Your task to perform on an android device: Find coffee shops on Maps Image 0: 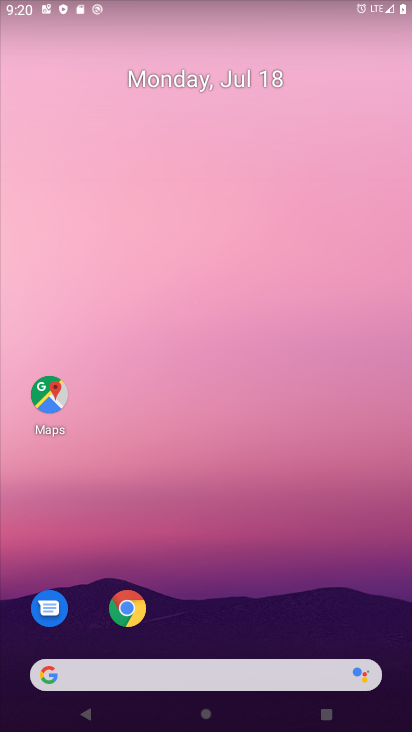
Step 0: drag from (242, 725) to (222, 162)
Your task to perform on an android device: Find coffee shops on Maps Image 1: 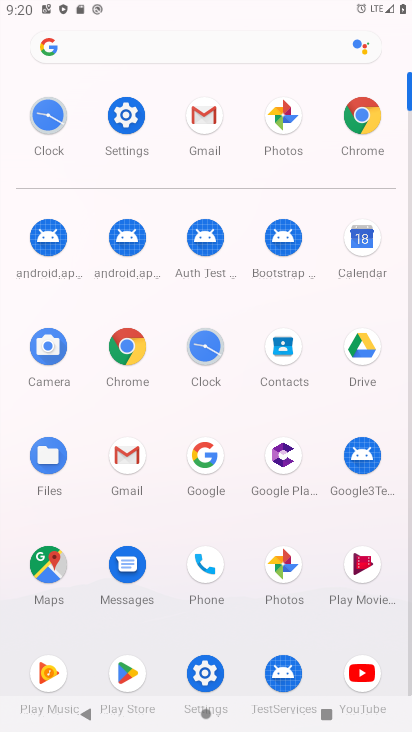
Step 1: click (44, 564)
Your task to perform on an android device: Find coffee shops on Maps Image 2: 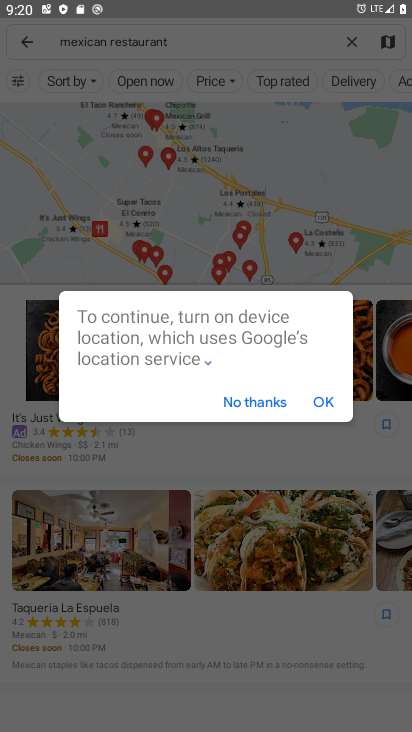
Step 2: click (260, 400)
Your task to perform on an android device: Find coffee shops on Maps Image 3: 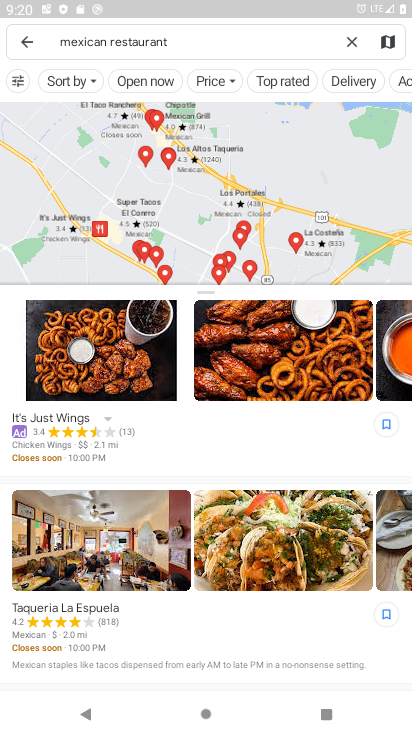
Step 3: click (354, 37)
Your task to perform on an android device: Find coffee shops on Maps Image 4: 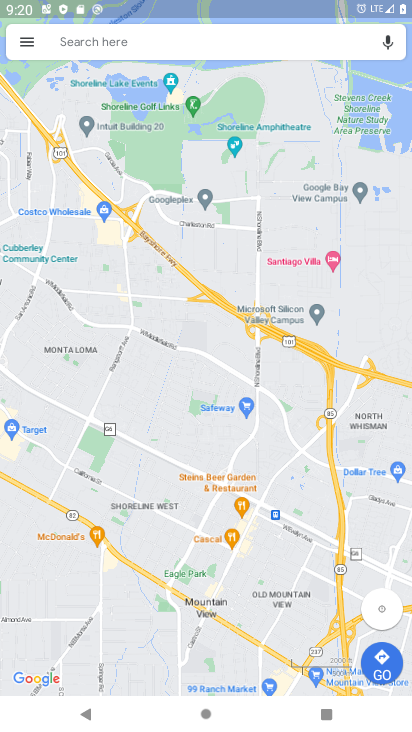
Step 4: click (236, 39)
Your task to perform on an android device: Find coffee shops on Maps Image 5: 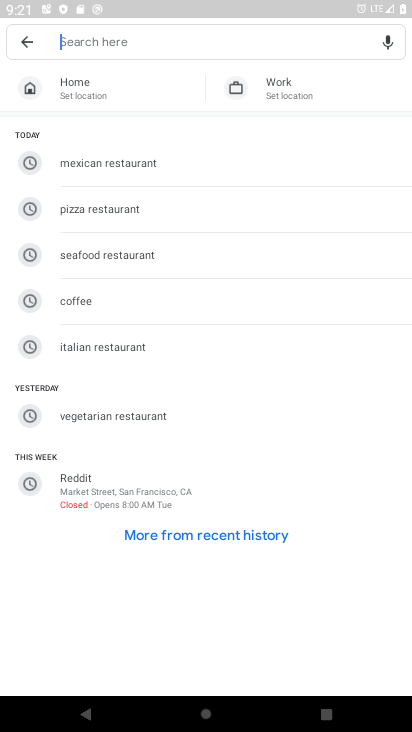
Step 5: type "coffee shops"
Your task to perform on an android device: Find coffee shops on Maps Image 6: 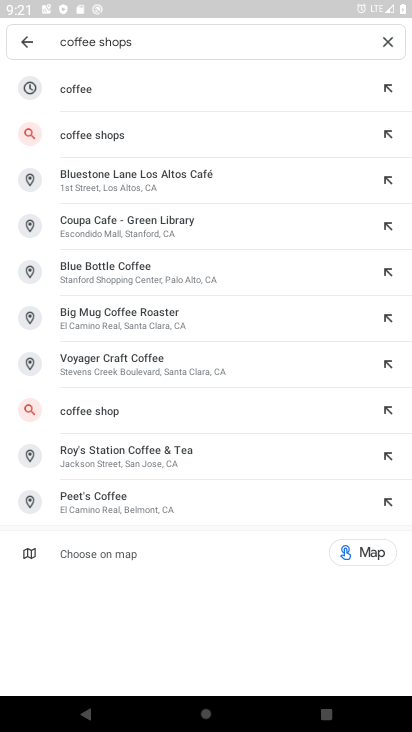
Step 6: click (96, 132)
Your task to perform on an android device: Find coffee shops on Maps Image 7: 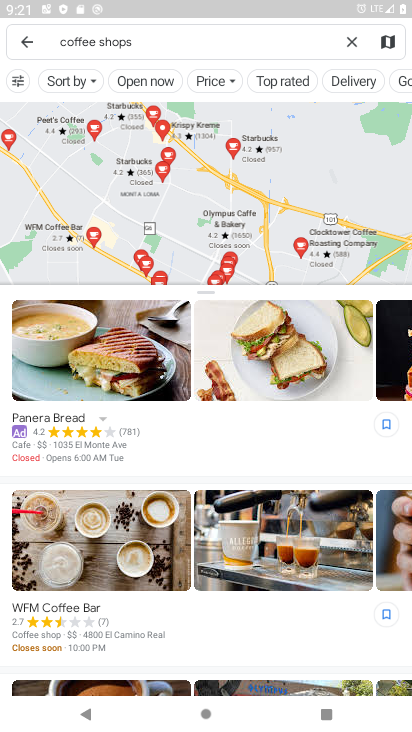
Step 7: task complete